Your task to perform on an android device: open app "PUBG MOBILE" (install if not already installed) and go to login screen Image 0: 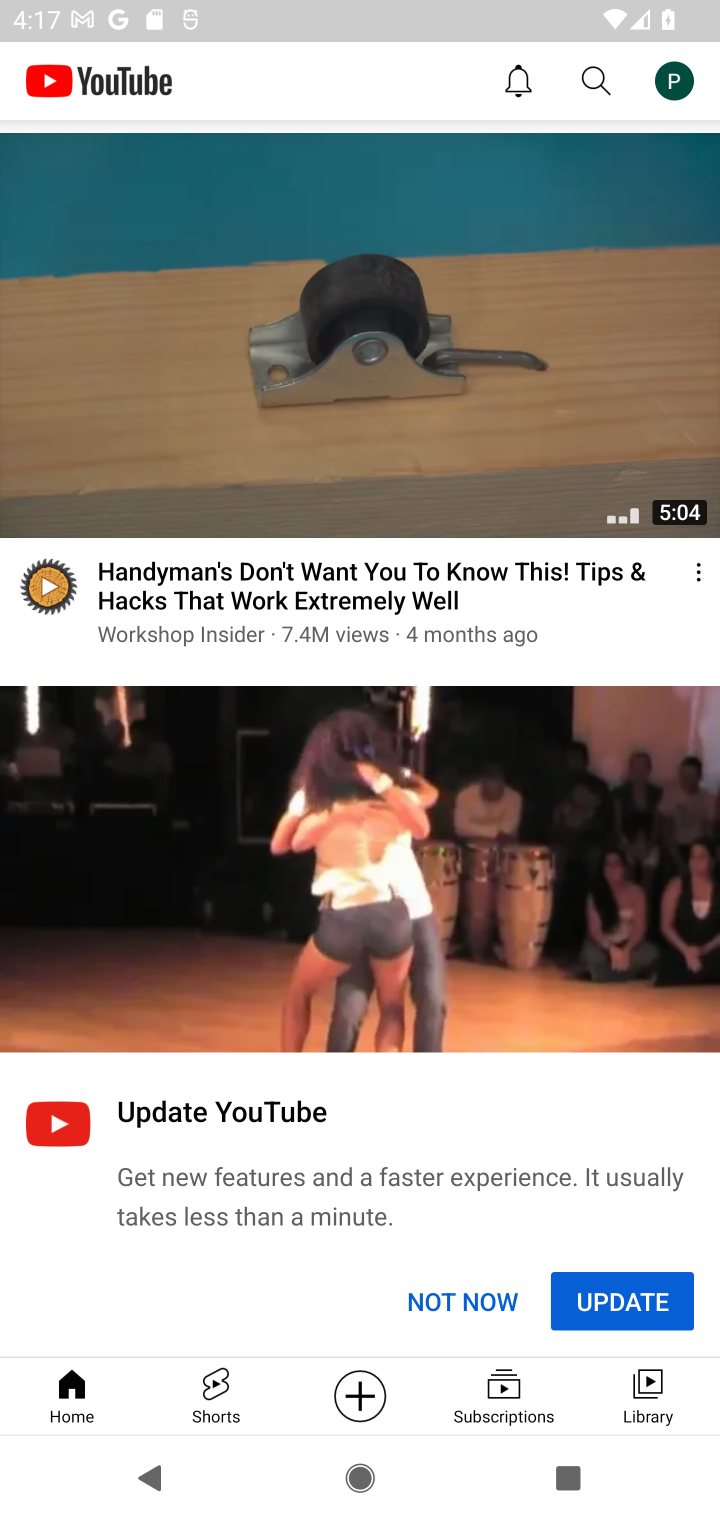
Step 0: press home button
Your task to perform on an android device: open app "PUBG MOBILE" (install if not already installed) and go to login screen Image 1: 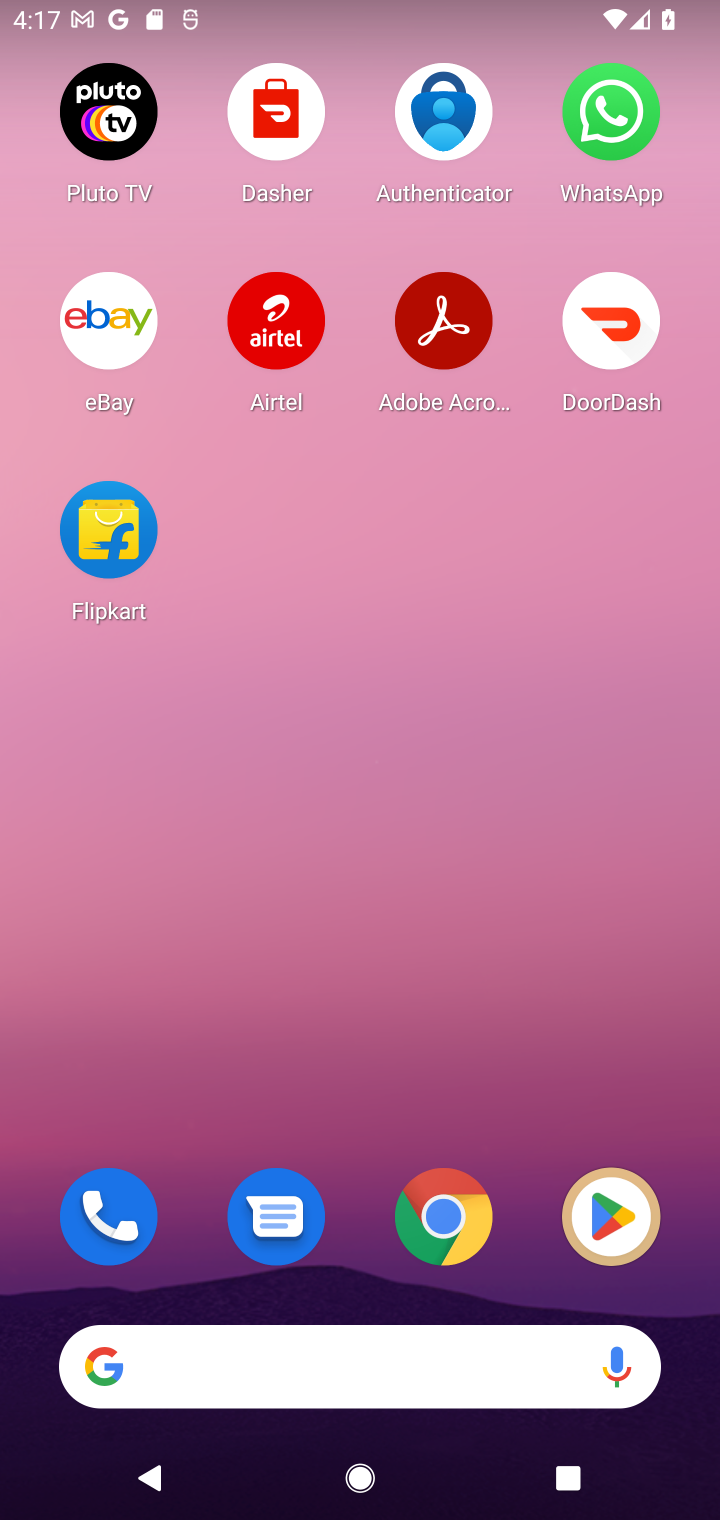
Step 1: click (611, 1212)
Your task to perform on an android device: open app "PUBG MOBILE" (install if not already installed) and go to login screen Image 2: 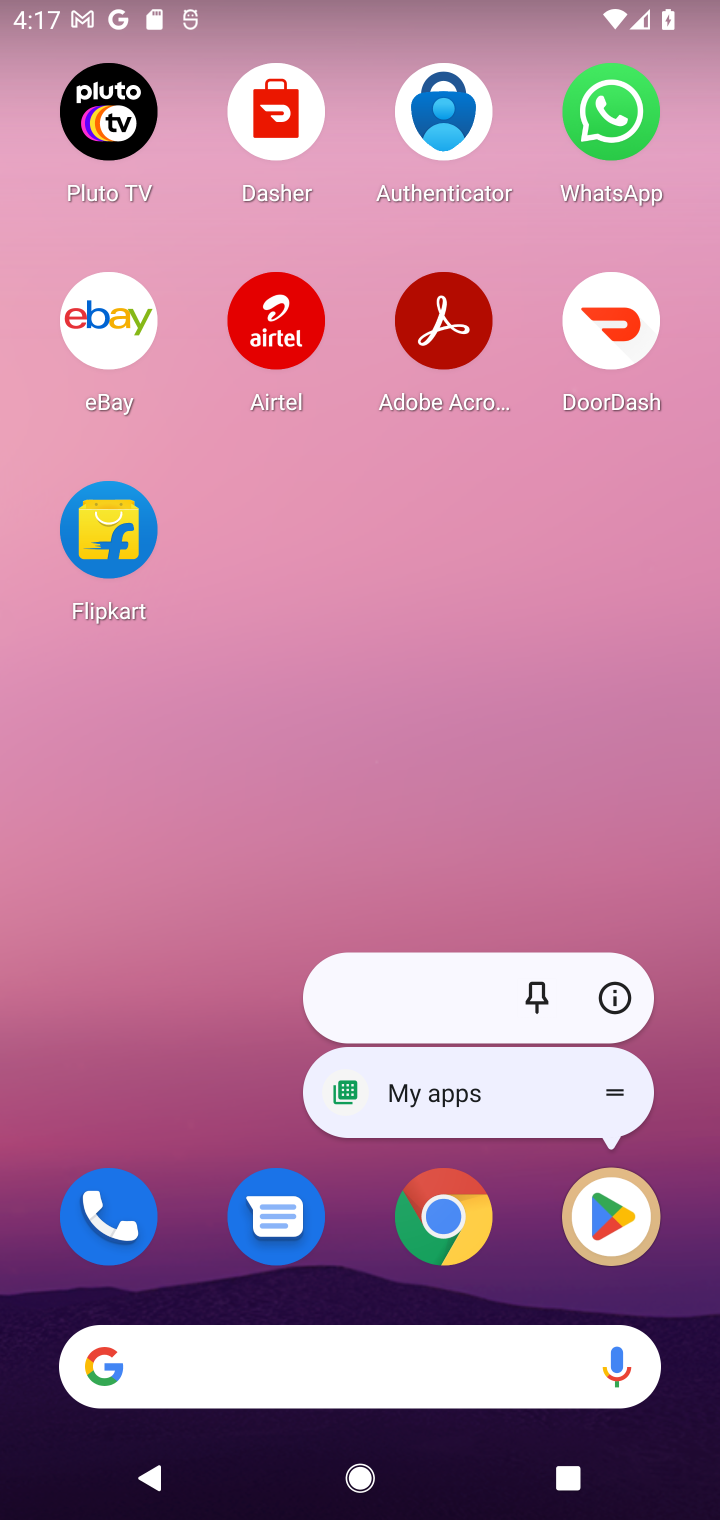
Step 2: click (592, 1210)
Your task to perform on an android device: open app "PUBG MOBILE" (install if not already installed) and go to login screen Image 3: 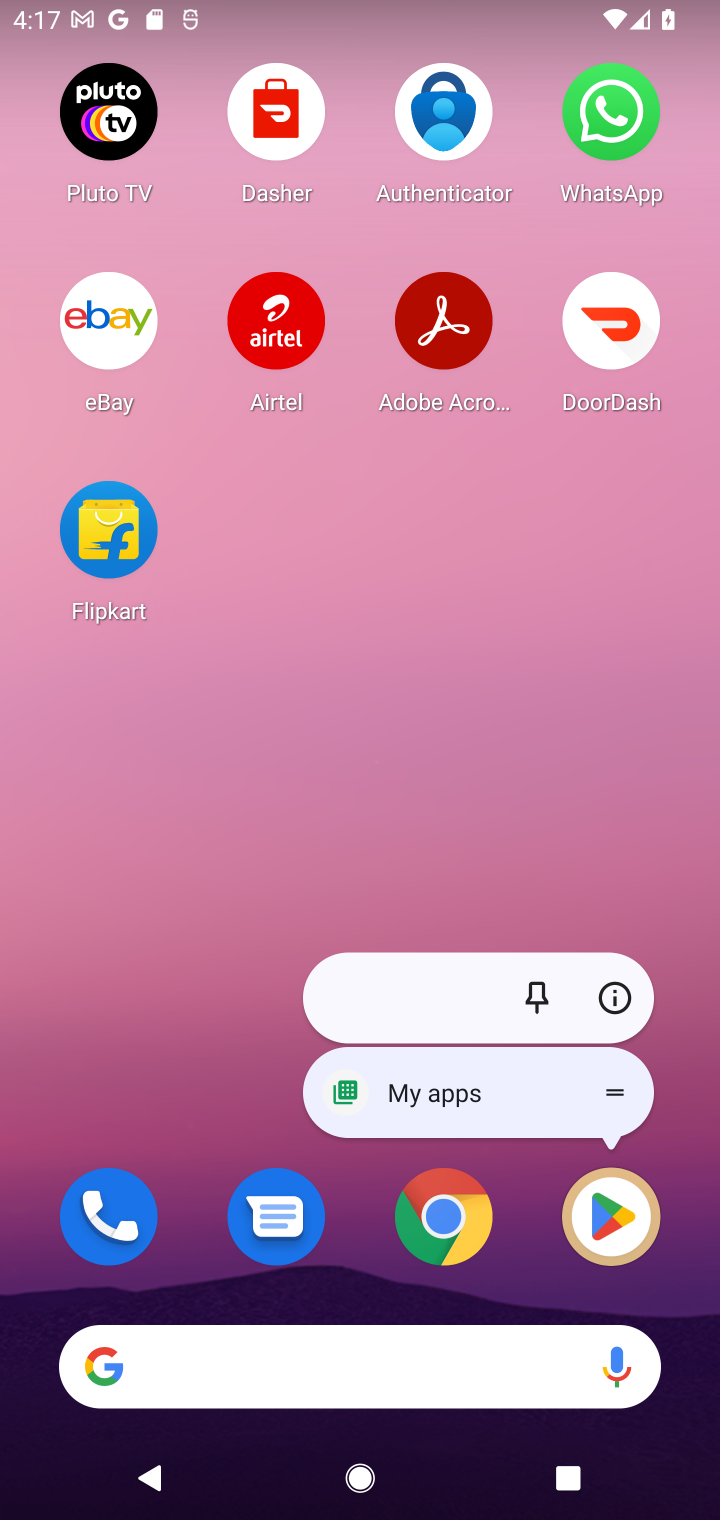
Step 3: click (605, 1198)
Your task to perform on an android device: open app "PUBG MOBILE" (install if not already installed) and go to login screen Image 4: 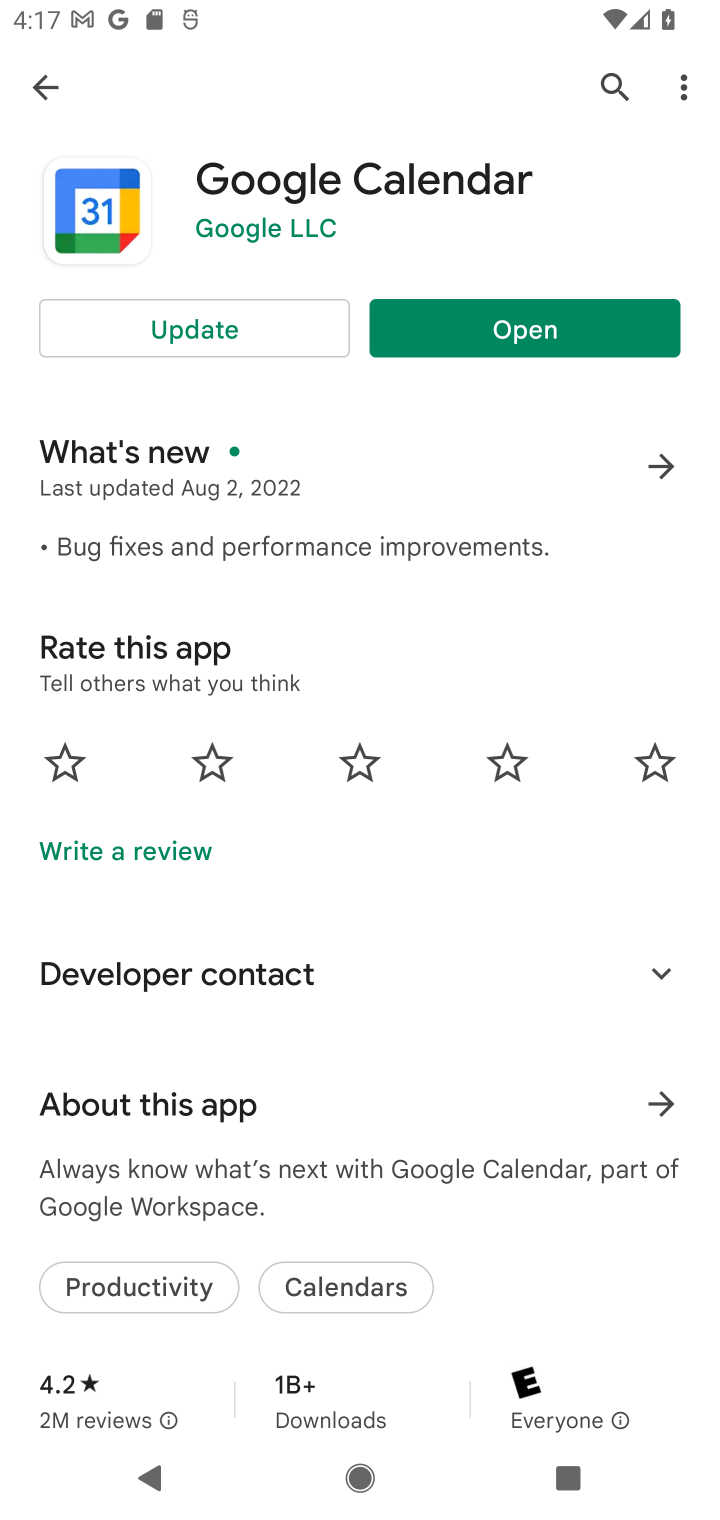
Step 4: click (612, 74)
Your task to perform on an android device: open app "PUBG MOBILE" (install if not already installed) and go to login screen Image 5: 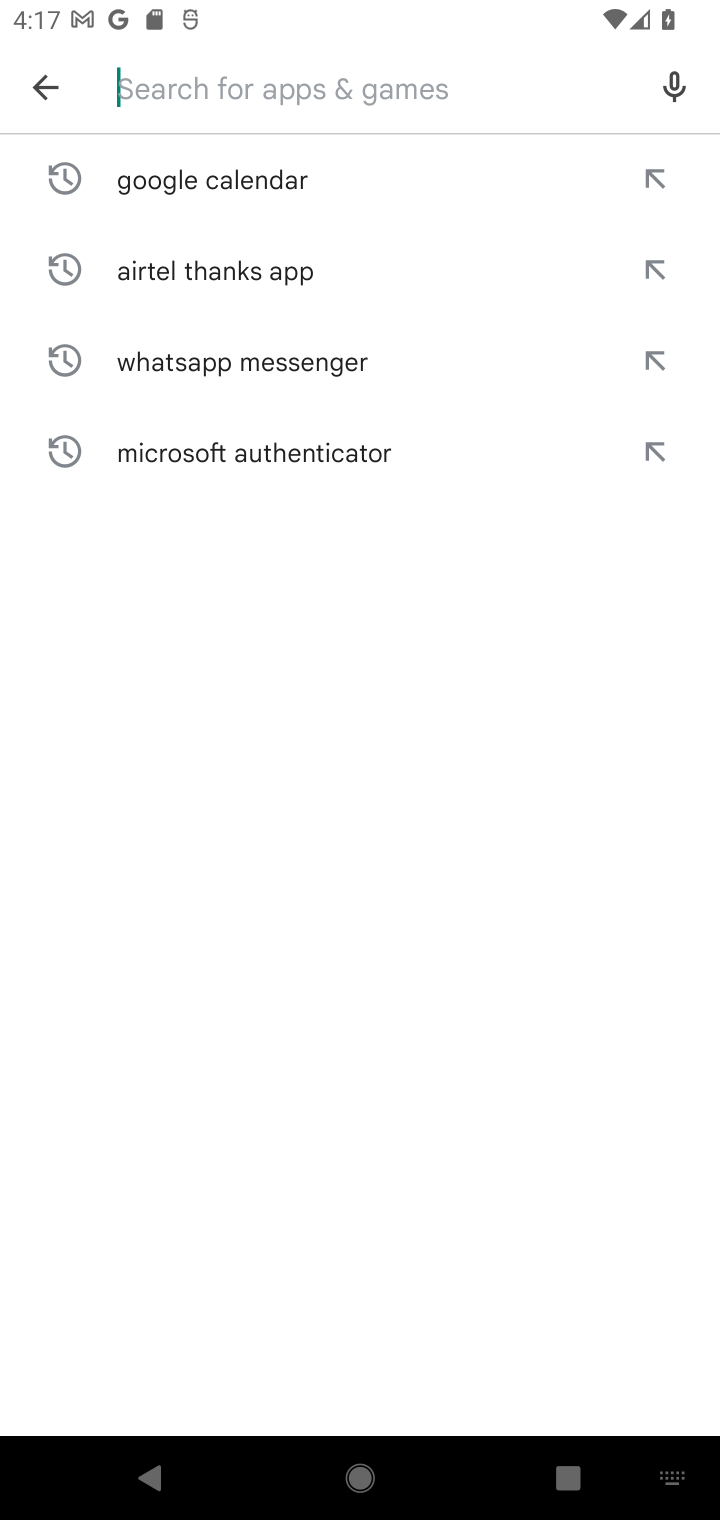
Step 5: click (274, 74)
Your task to perform on an android device: open app "PUBG MOBILE" (install if not already installed) and go to login screen Image 6: 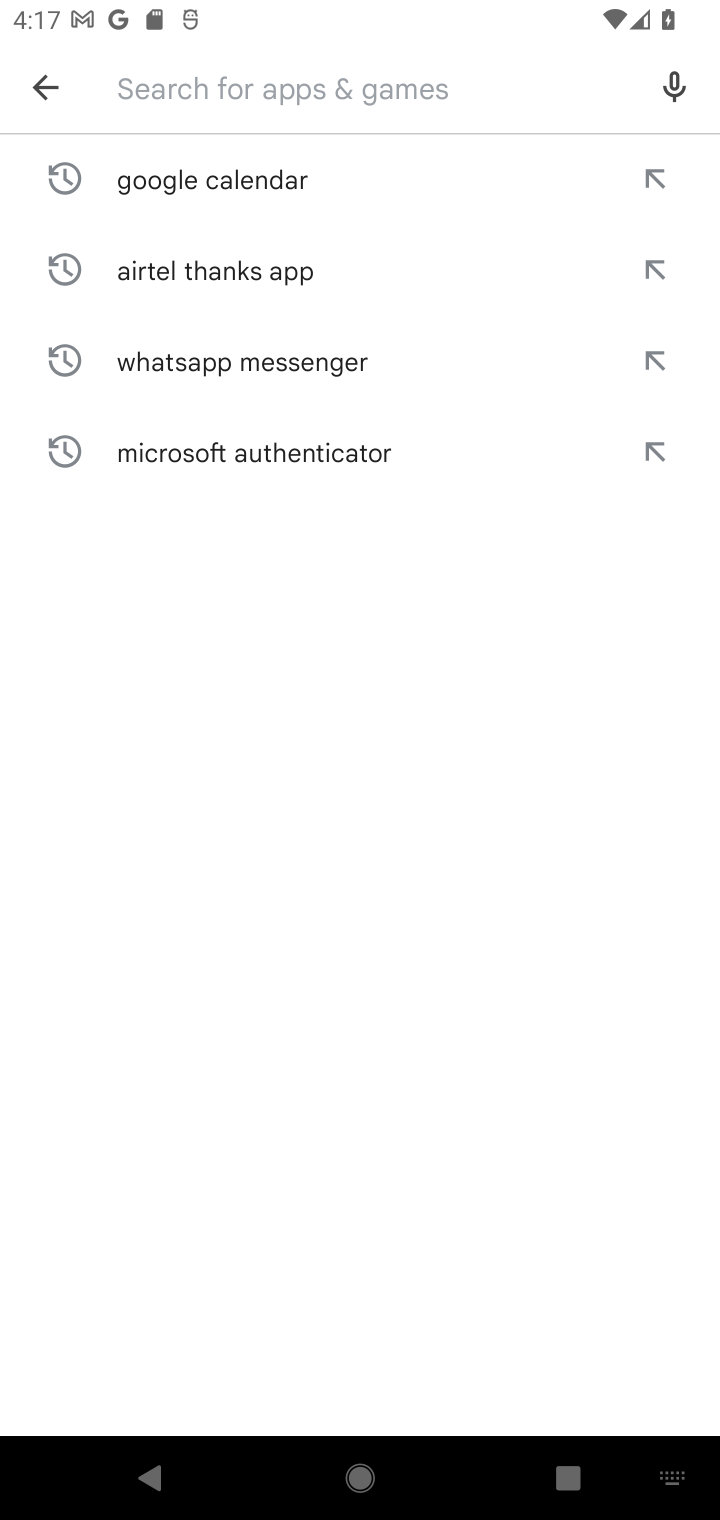
Step 6: type "PUBG MOBILE"
Your task to perform on an android device: open app "PUBG MOBILE" (install if not already installed) and go to login screen Image 7: 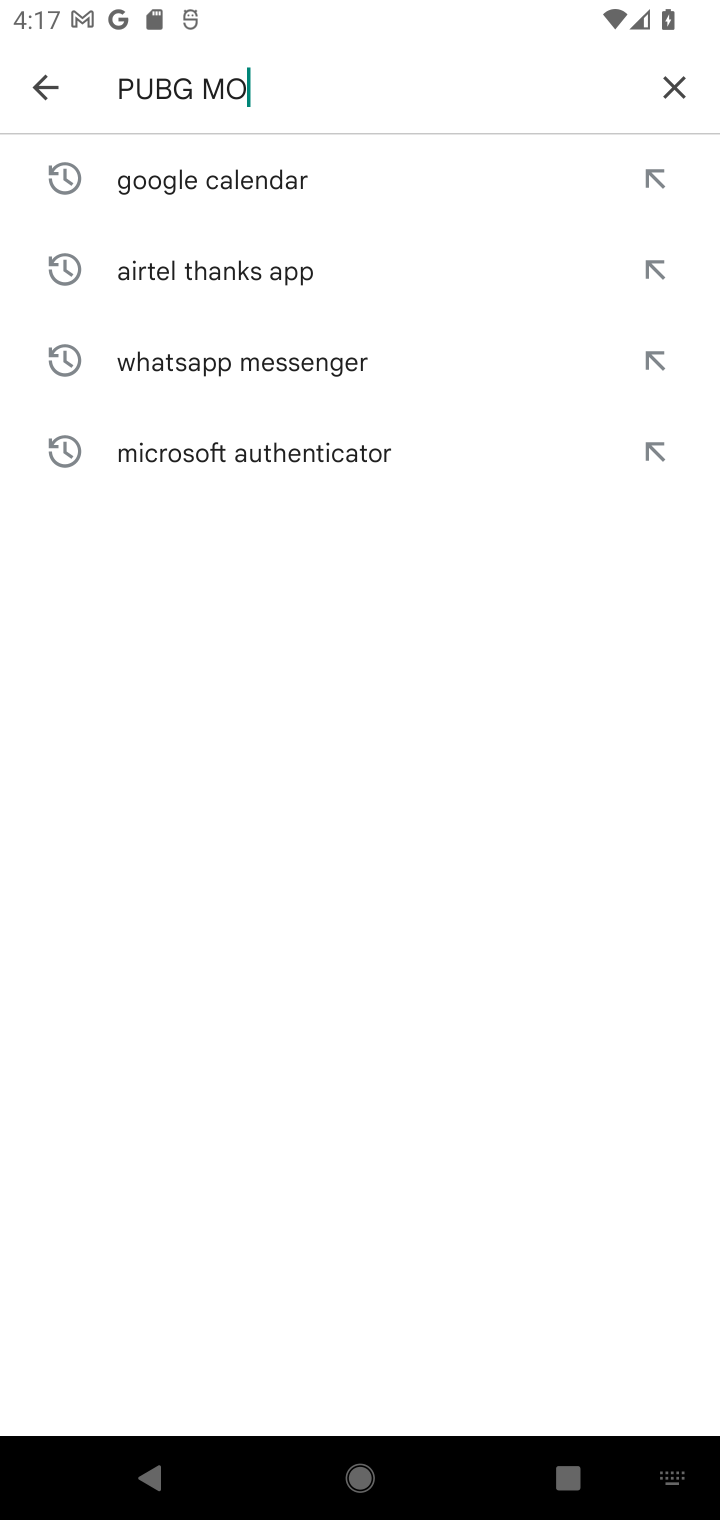
Step 7: type ""
Your task to perform on an android device: open app "PUBG MOBILE" (install if not already installed) and go to login screen Image 8: 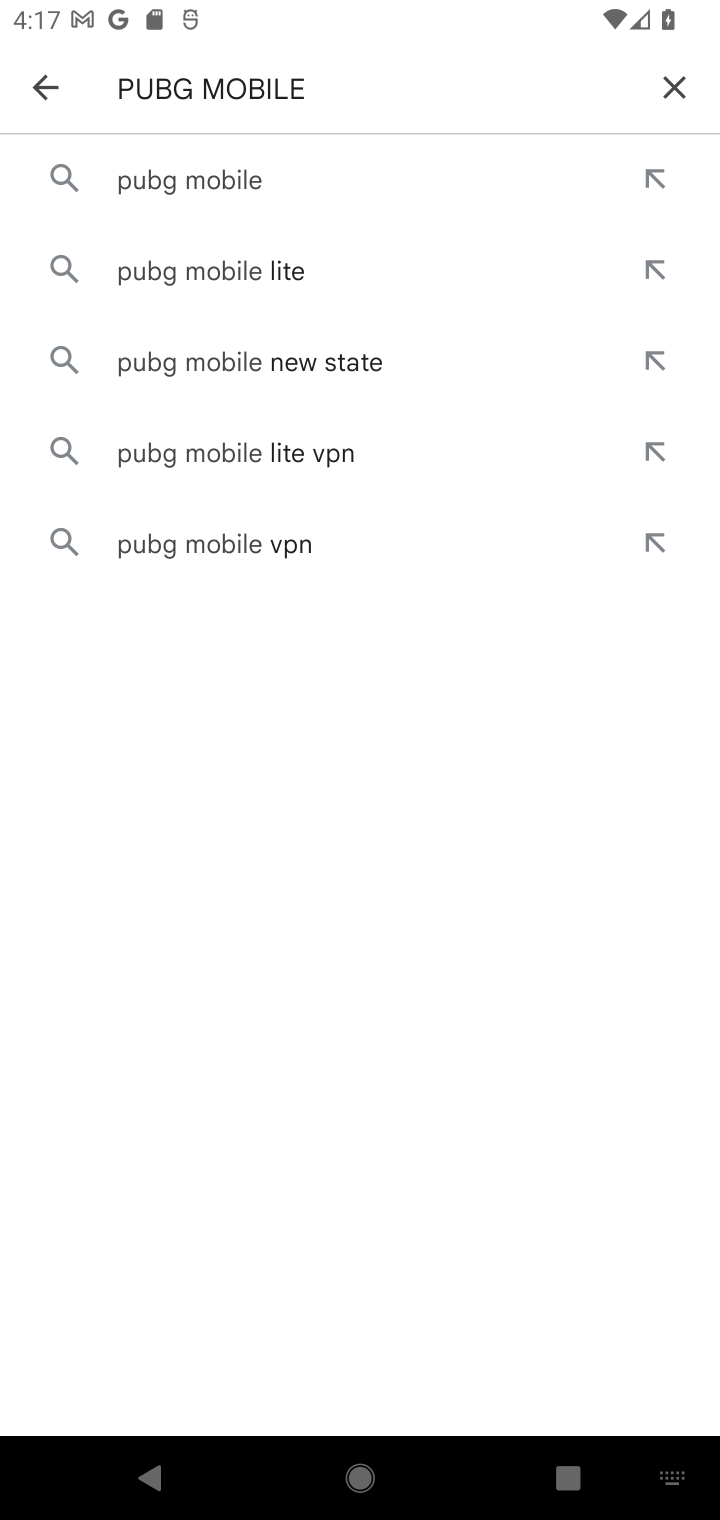
Step 8: click (342, 181)
Your task to perform on an android device: open app "PUBG MOBILE" (install if not already installed) and go to login screen Image 9: 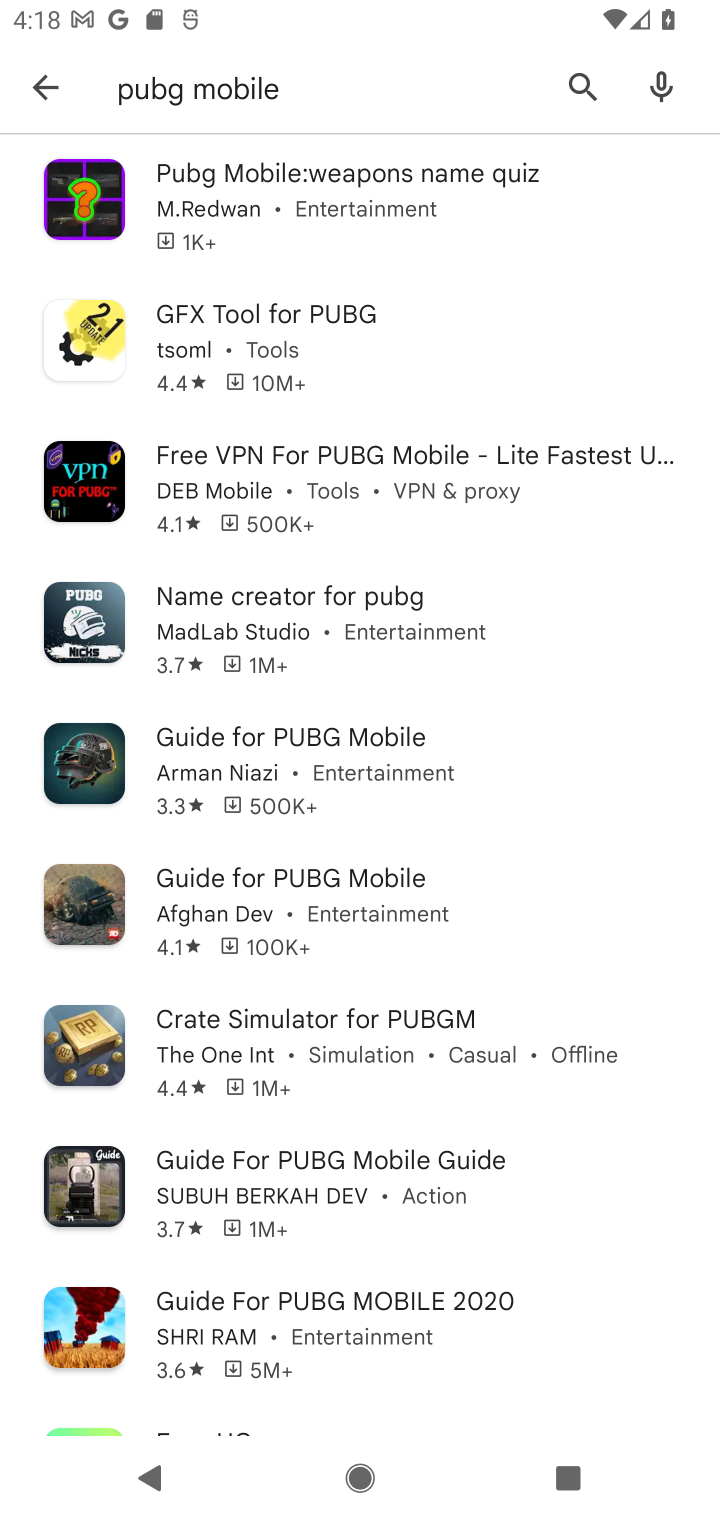
Step 9: task complete